Your task to perform on an android device: Open Yahoo.com Image 0: 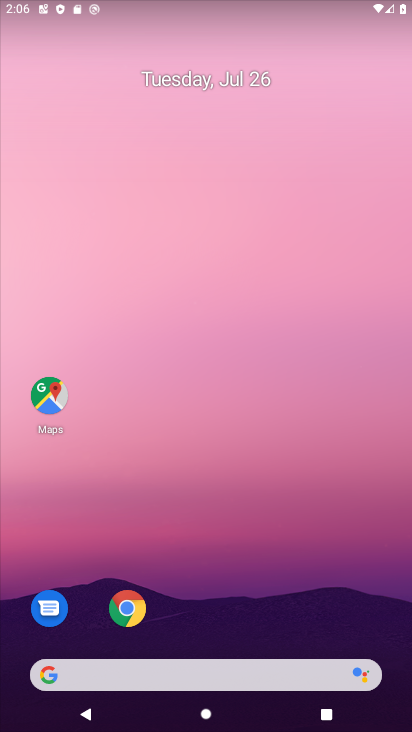
Step 0: drag from (307, 639) to (242, 214)
Your task to perform on an android device: Open Yahoo.com Image 1: 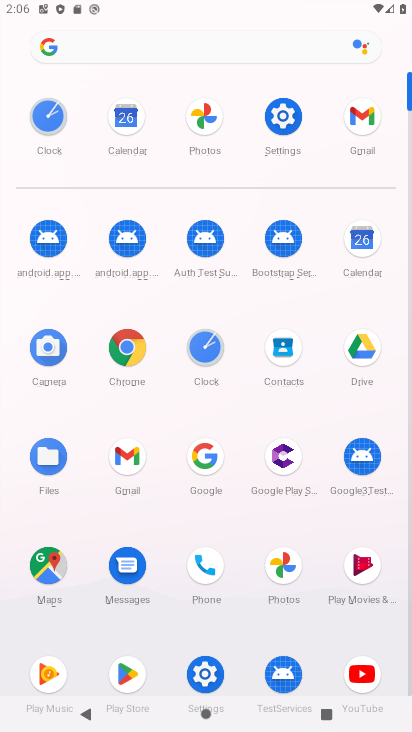
Step 1: click (225, 57)
Your task to perform on an android device: Open Yahoo.com Image 2: 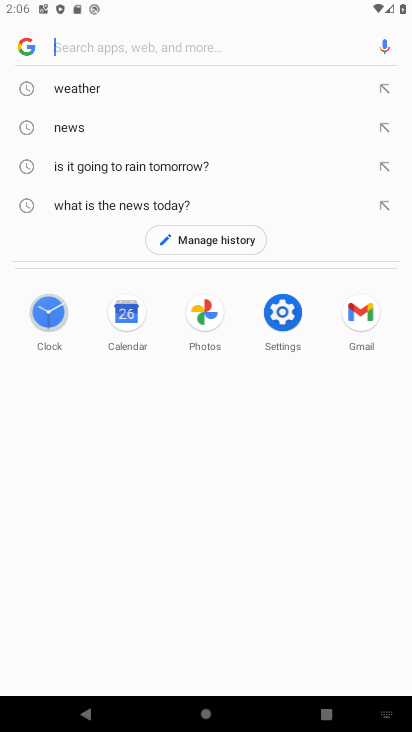
Step 2: type "yahoo.com"
Your task to perform on an android device: Open Yahoo.com Image 3: 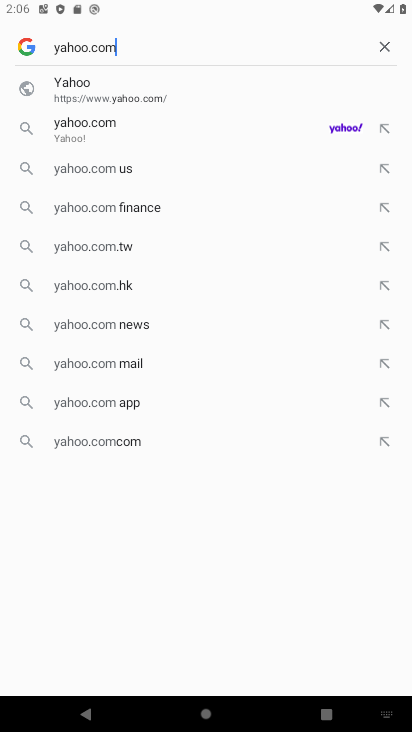
Step 3: click (194, 81)
Your task to perform on an android device: Open Yahoo.com Image 4: 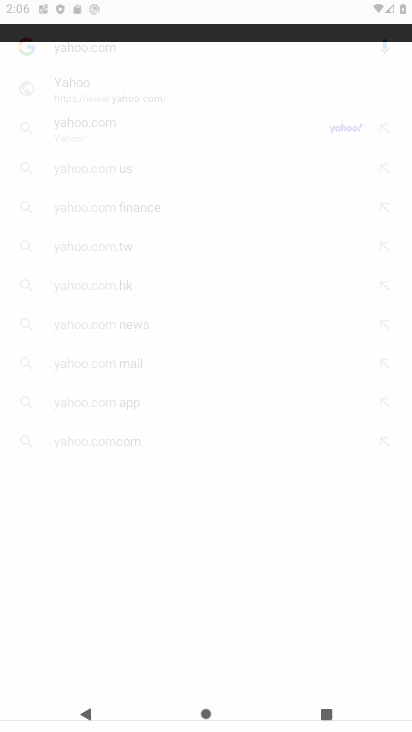
Step 4: task complete